Your task to perform on an android device: open sync settings in chrome Image 0: 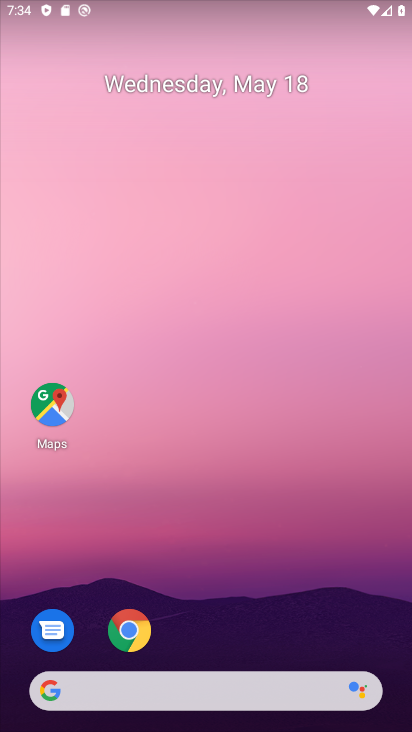
Step 0: drag from (342, 533) to (378, 29)
Your task to perform on an android device: open sync settings in chrome Image 1: 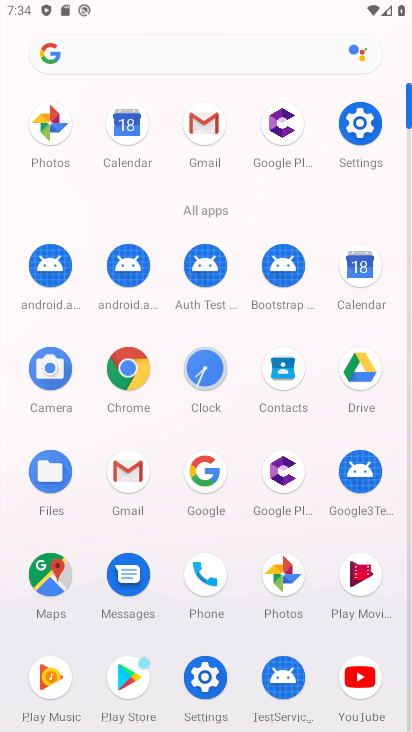
Step 1: click (127, 384)
Your task to perform on an android device: open sync settings in chrome Image 2: 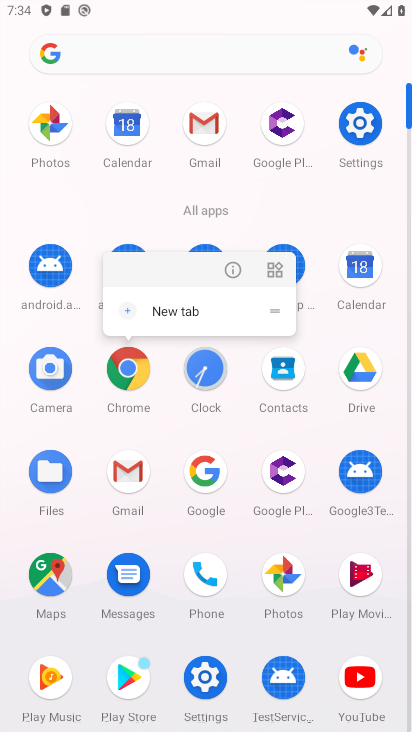
Step 2: click (127, 384)
Your task to perform on an android device: open sync settings in chrome Image 3: 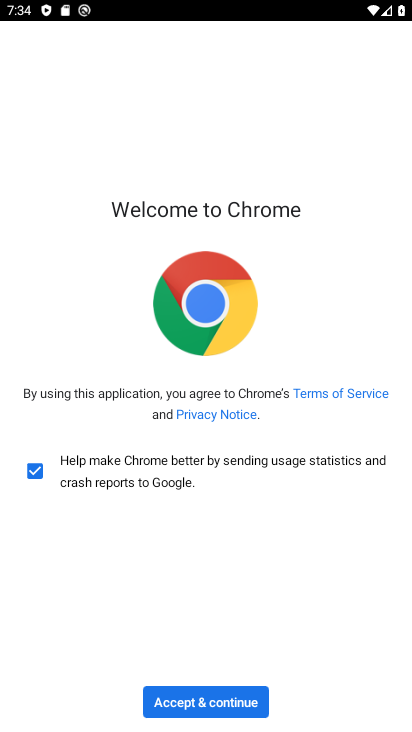
Step 3: click (247, 701)
Your task to perform on an android device: open sync settings in chrome Image 4: 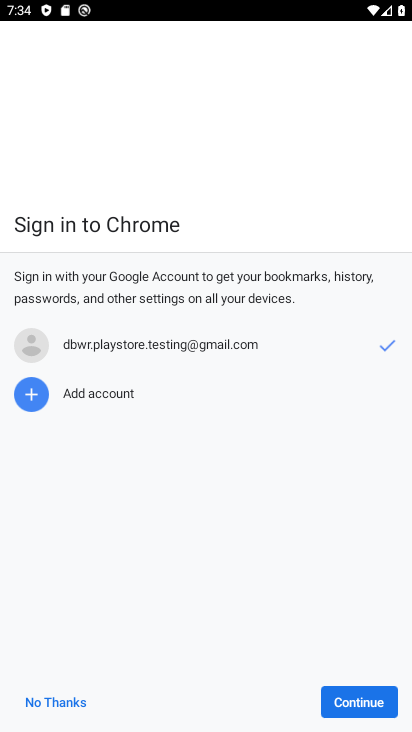
Step 4: click (71, 700)
Your task to perform on an android device: open sync settings in chrome Image 5: 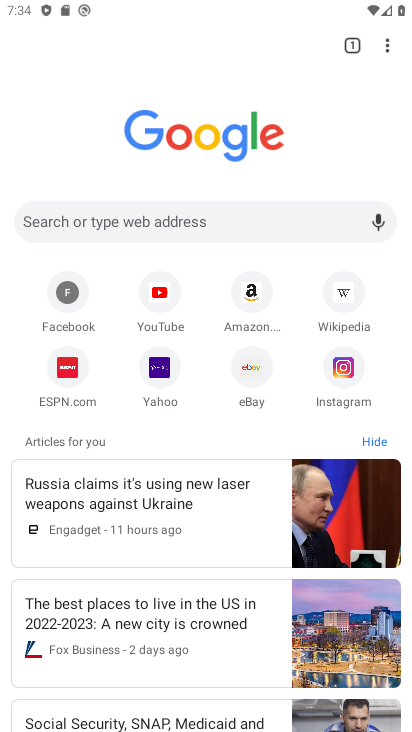
Step 5: drag from (391, 41) to (185, 393)
Your task to perform on an android device: open sync settings in chrome Image 6: 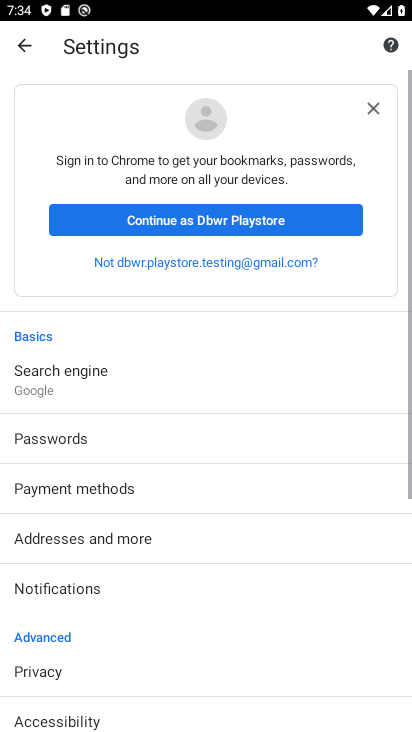
Step 6: drag from (164, 590) to (153, 285)
Your task to perform on an android device: open sync settings in chrome Image 7: 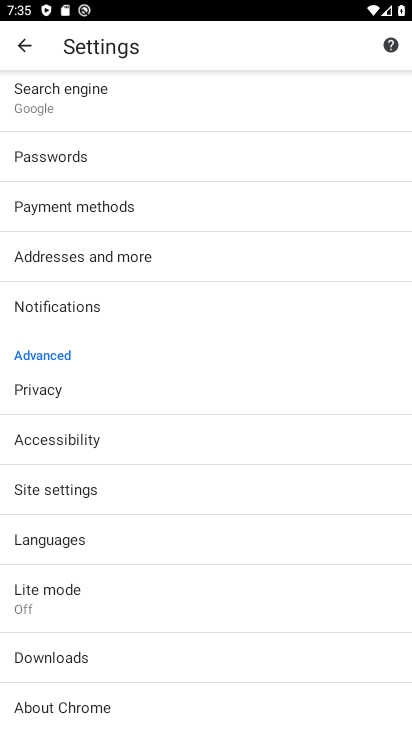
Step 7: click (143, 491)
Your task to perform on an android device: open sync settings in chrome Image 8: 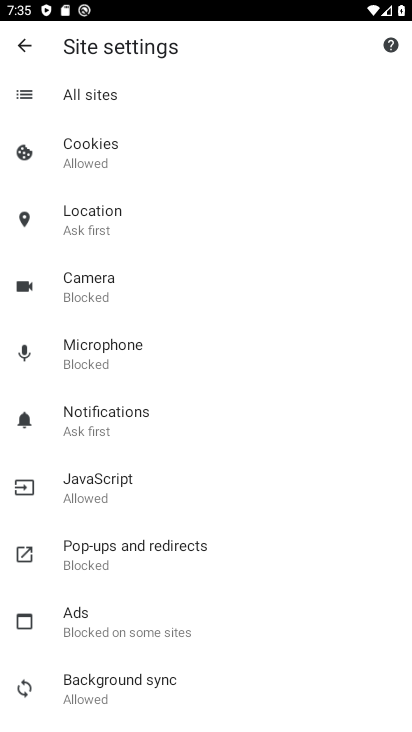
Step 8: drag from (137, 619) to (129, 264)
Your task to perform on an android device: open sync settings in chrome Image 9: 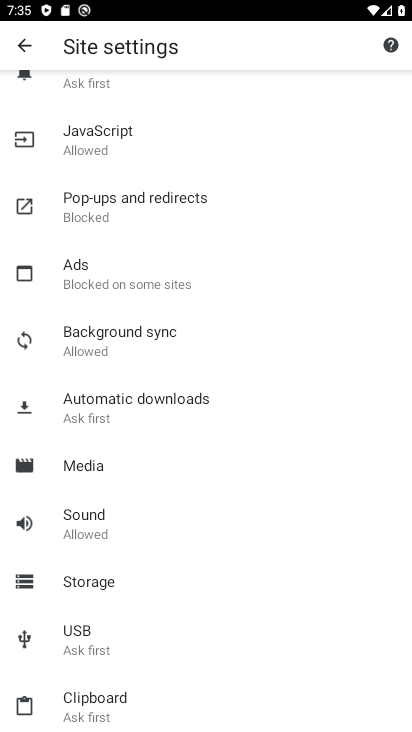
Step 9: click (130, 353)
Your task to perform on an android device: open sync settings in chrome Image 10: 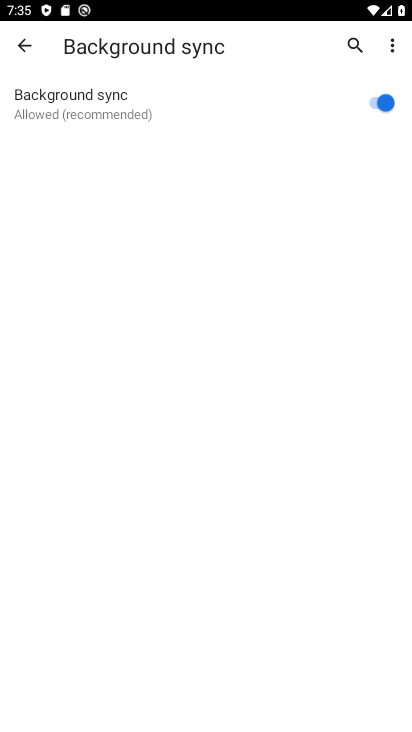
Step 10: task complete